Your task to perform on an android device: find snoozed emails in the gmail app Image 0: 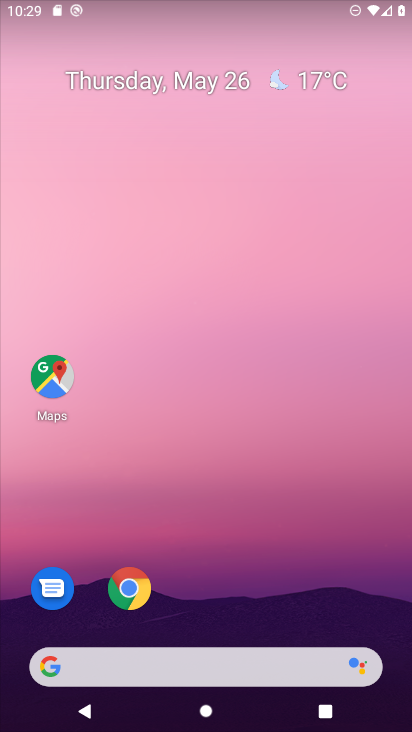
Step 0: drag from (343, 608) to (247, 12)
Your task to perform on an android device: find snoozed emails in the gmail app Image 1: 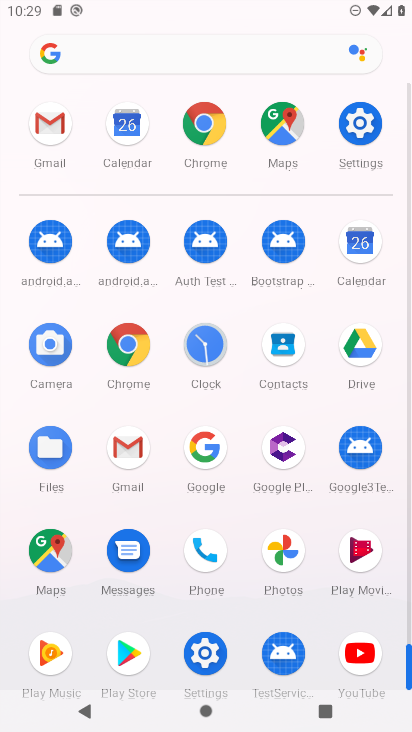
Step 1: click (128, 444)
Your task to perform on an android device: find snoozed emails in the gmail app Image 2: 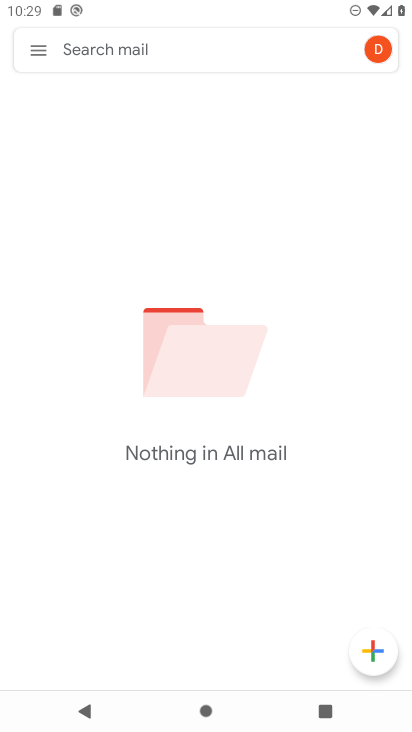
Step 2: click (37, 46)
Your task to perform on an android device: find snoozed emails in the gmail app Image 3: 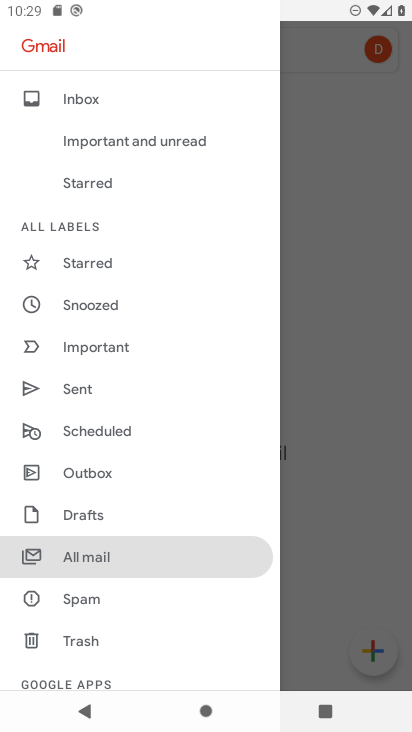
Step 3: click (95, 311)
Your task to perform on an android device: find snoozed emails in the gmail app Image 4: 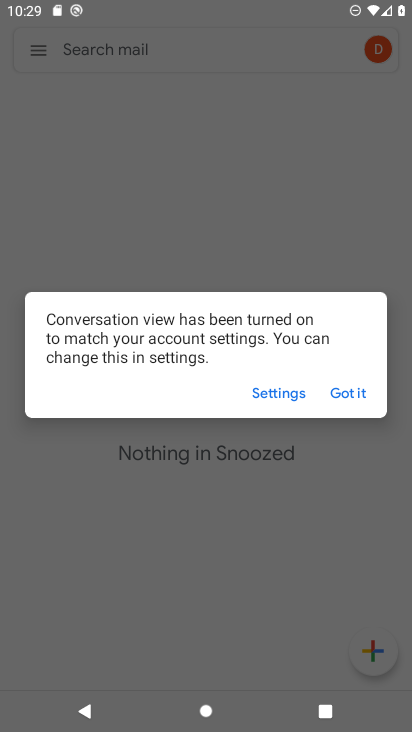
Step 4: click (343, 395)
Your task to perform on an android device: find snoozed emails in the gmail app Image 5: 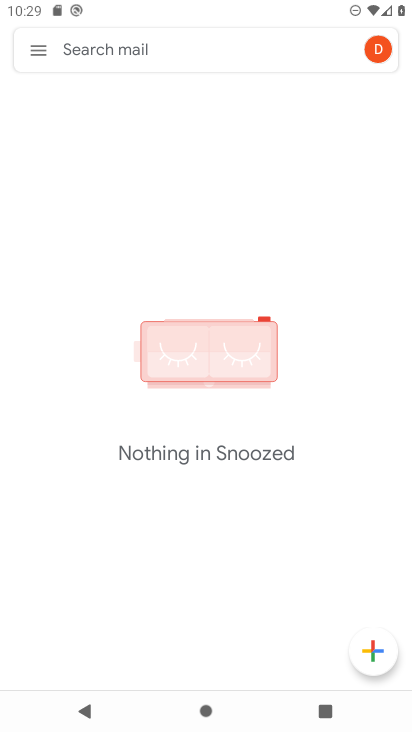
Step 5: task complete